Your task to perform on an android device: Go to accessibility settings Image 0: 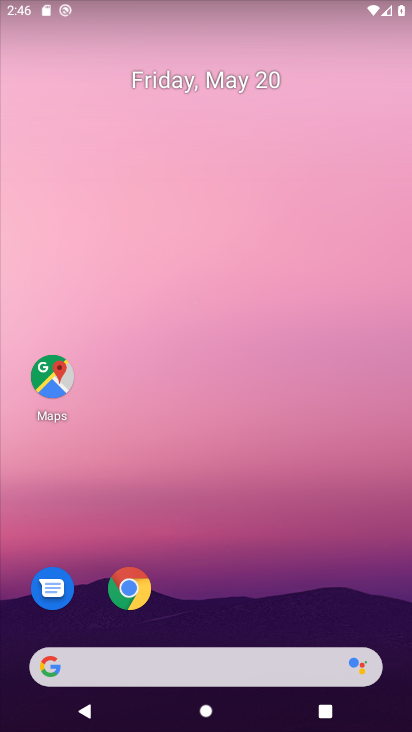
Step 0: drag from (229, 574) to (242, 132)
Your task to perform on an android device: Go to accessibility settings Image 1: 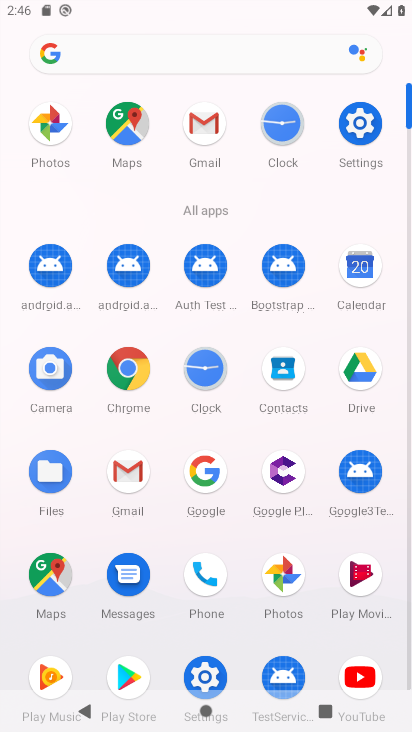
Step 1: click (355, 123)
Your task to perform on an android device: Go to accessibility settings Image 2: 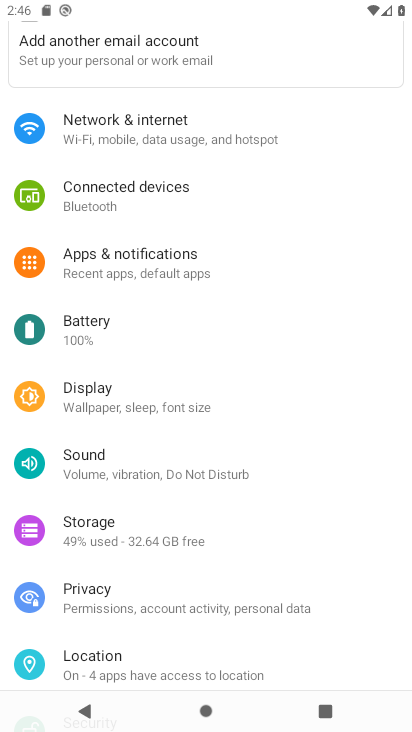
Step 2: drag from (158, 244) to (218, 573)
Your task to perform on an android device: Go to accessibility settings Image 3: 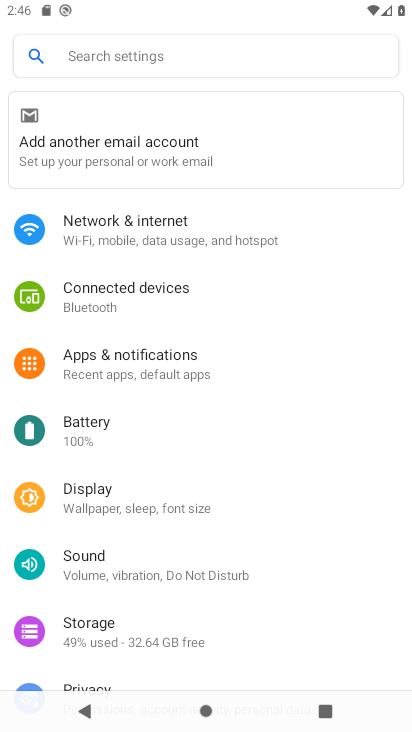
Step 3: drag from (216, 553) to (307, 184)
Your task to perform on an android device: Go to accessibility settings Image 4: 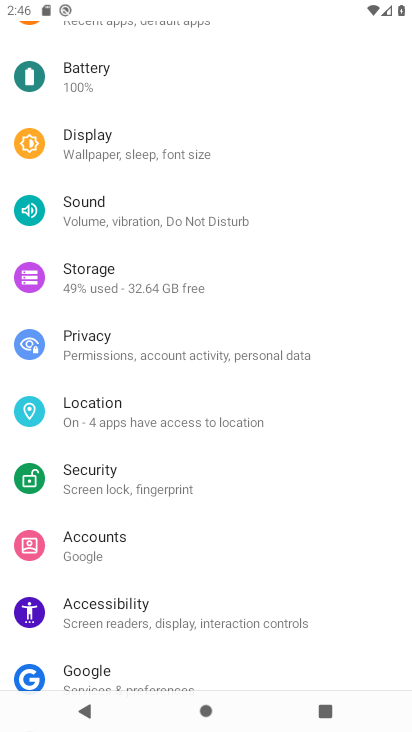
Step 4: drag from (201, 521) to (287, 316)
Your task to perform on an android device: Go to accessibility settings Image 5: 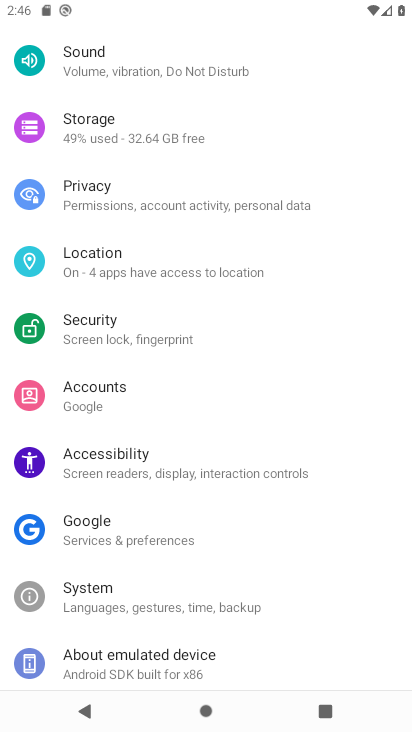
Step 5: click (188, 473)
Your task to perform on an android device: Go to accessibility settings Image 6: 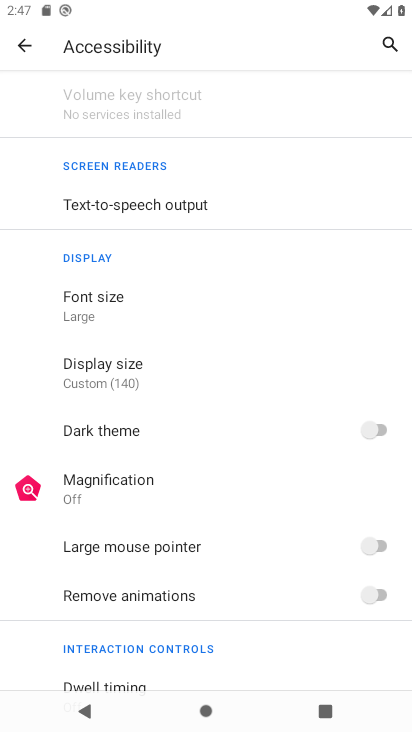
Step 6: task complete